Your task to perform on an android device: Empty the shopping cart on amazon. Search for energizer triple a on amazon, select the first entry, and add it to the cart. Image 0: 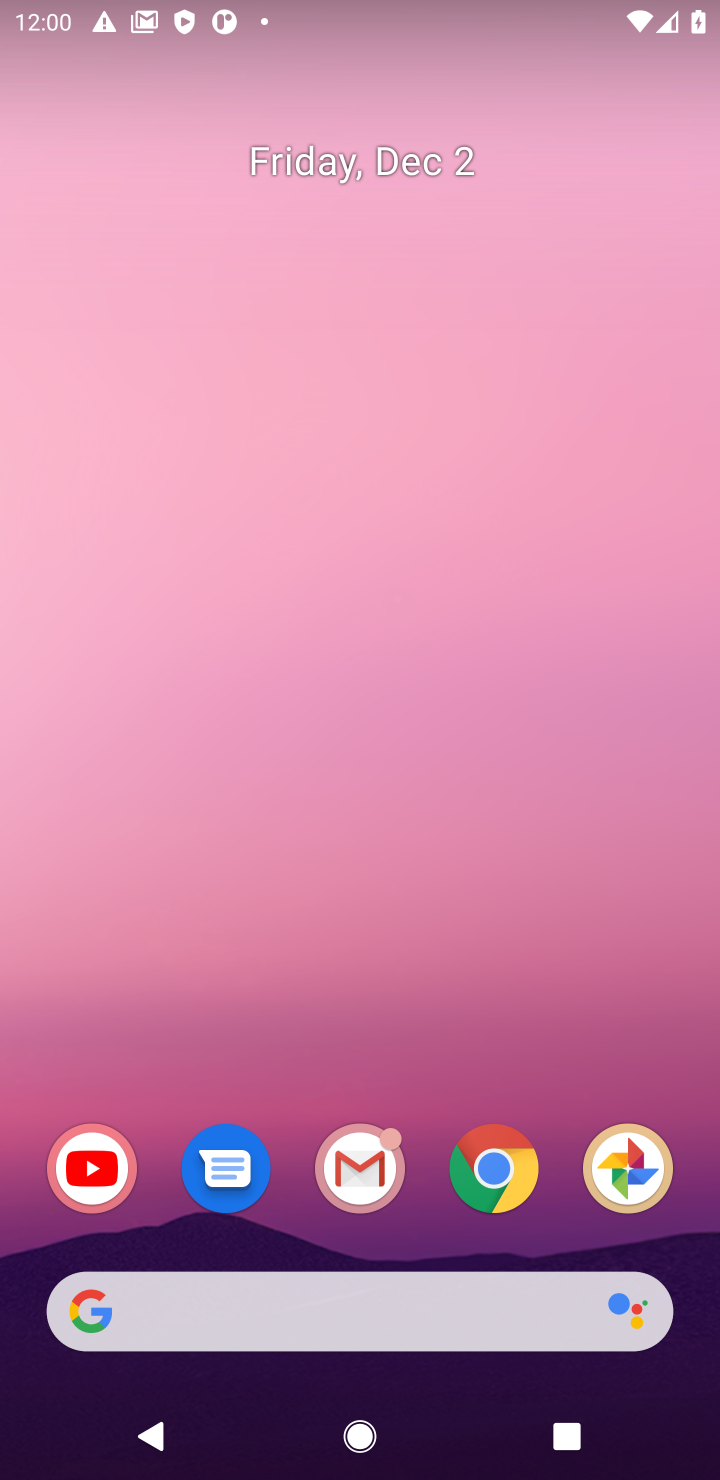
Step 0: click (504, 1177)
Your task to perform on an android device: Empty the shopping cart on amazon. Search for energizer triple a on amazon, select the first entry, and add it to the cart. Image 1: 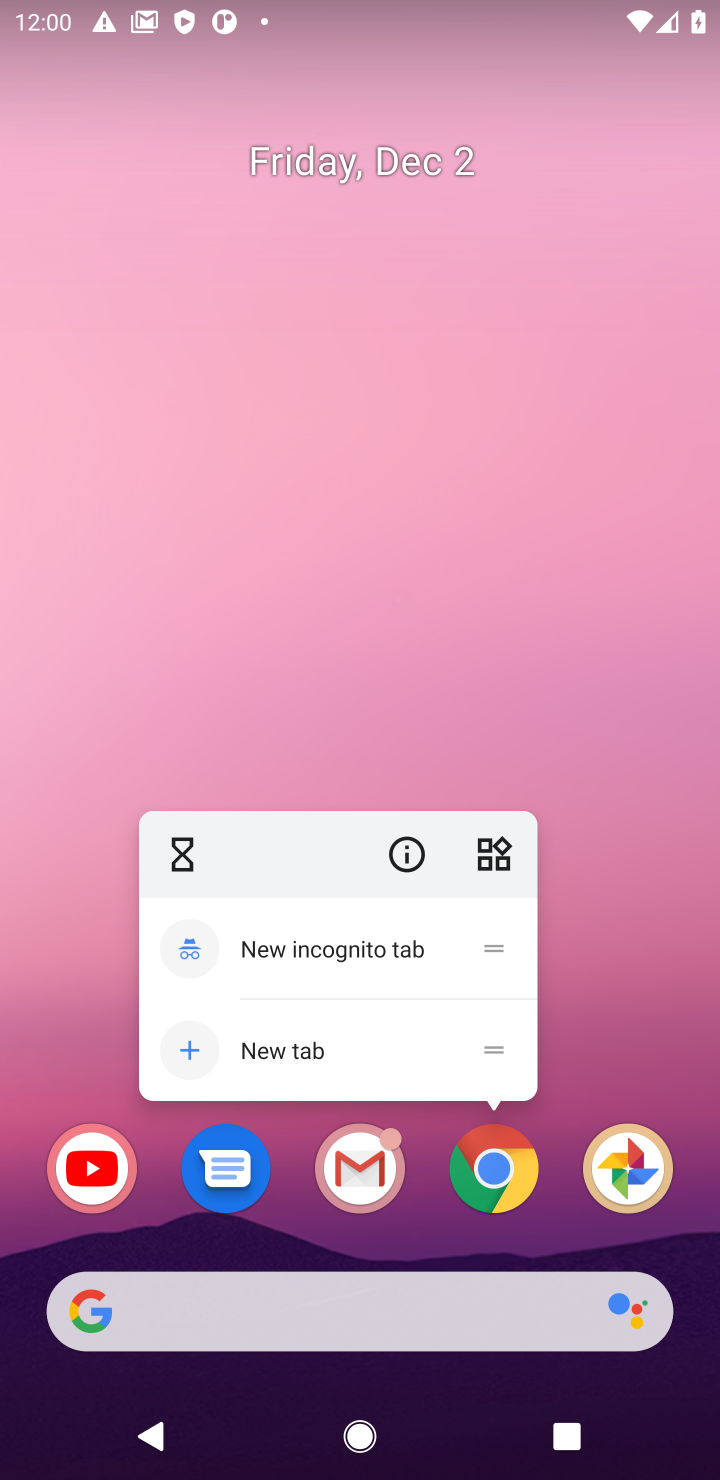
Step 1: click (504, 1177)
Your task to perform on an android device: Empty the shopping cart on amazon. Search for energizer triple a on amazon, select the first entry, and add it to the cart. Image 2: 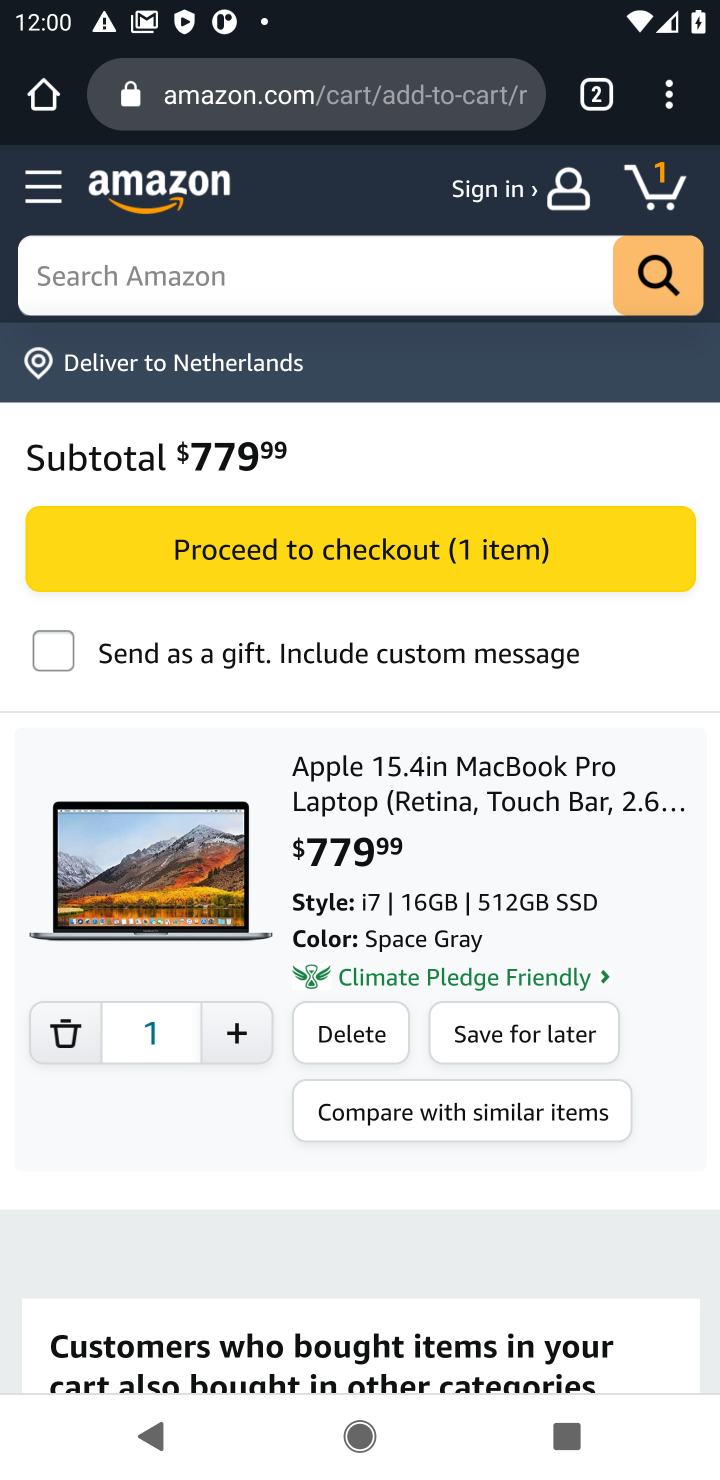
Step 2: click (64, 1046)
Your task to perform on an android device: Empty the shopping cart on amazon. Search for energizer triple a on amazon, select the first entry, and add it to the cart. Image 3: 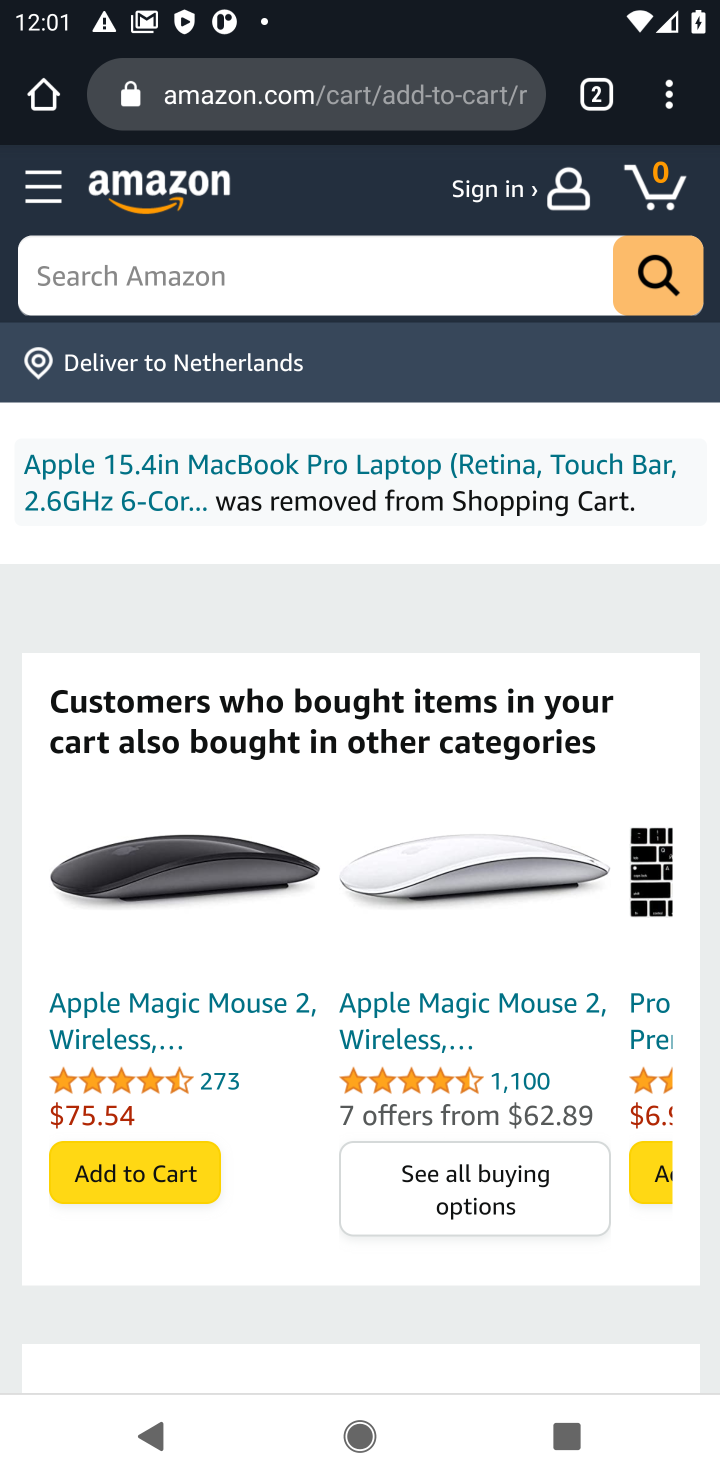
Step 3: click (73, 270)
Your task to perform on an android device: Empty the shopping cart on amazon. Search for energizer triple a on amazon, select the first entry, and add it to the cart. Image 4: 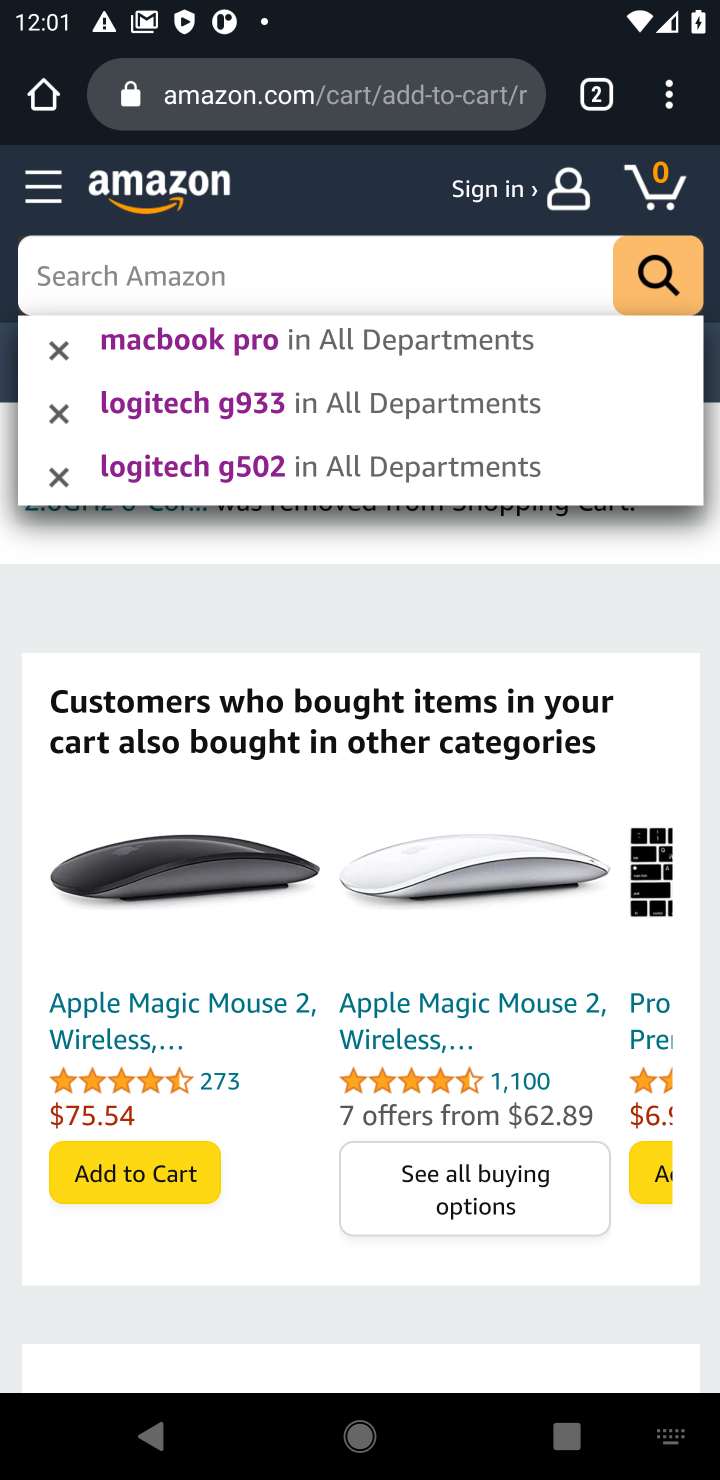
Step 4: type "energizer triple a"
Your task to perform on an android device: Empty the shopping cart on amazon. Search for energizer triple a on amazon, select the first entry, and add it to the cart. Image 5: 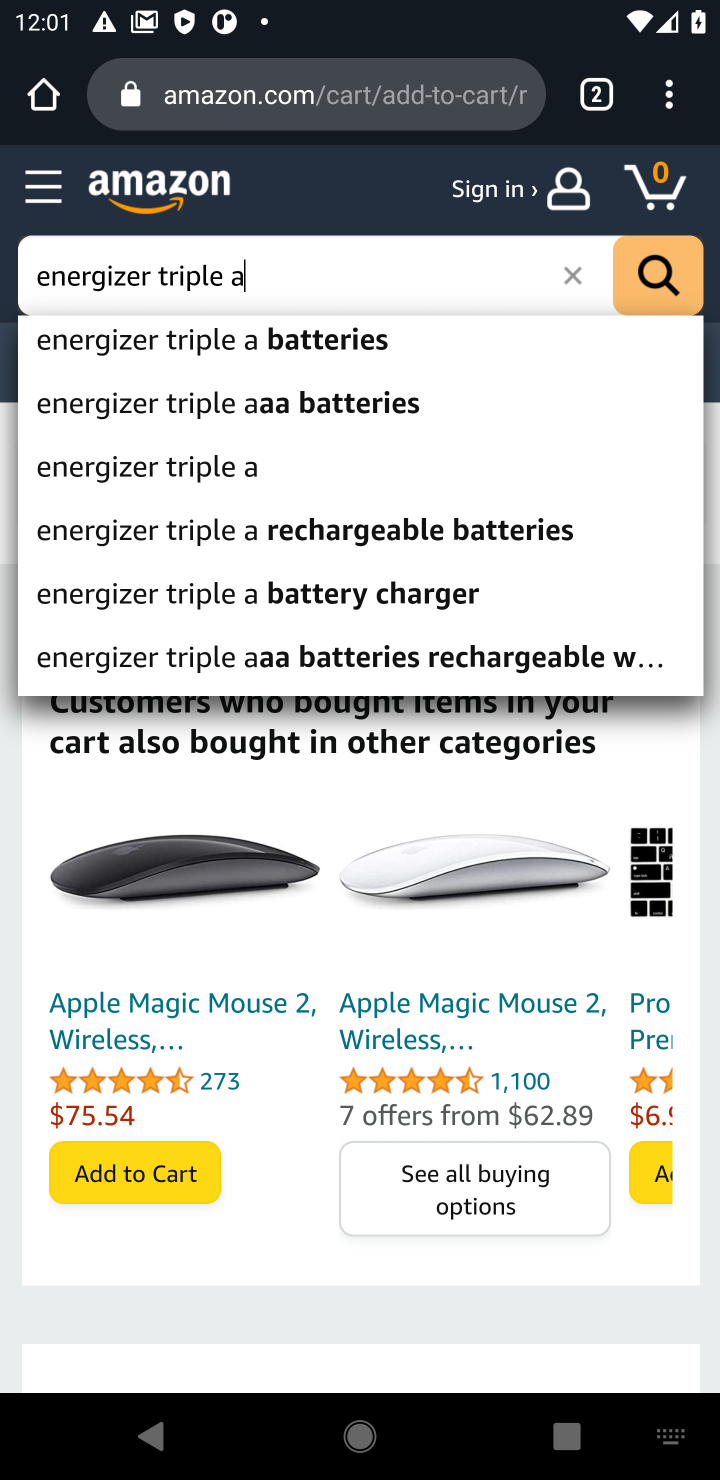
Step 5: click (298, 353)
Your task to perform on an android device: Empty the shopping cart on amazon. Search for energizer triple a on amazon, select the first entry, and add it to the cart. Image 6: 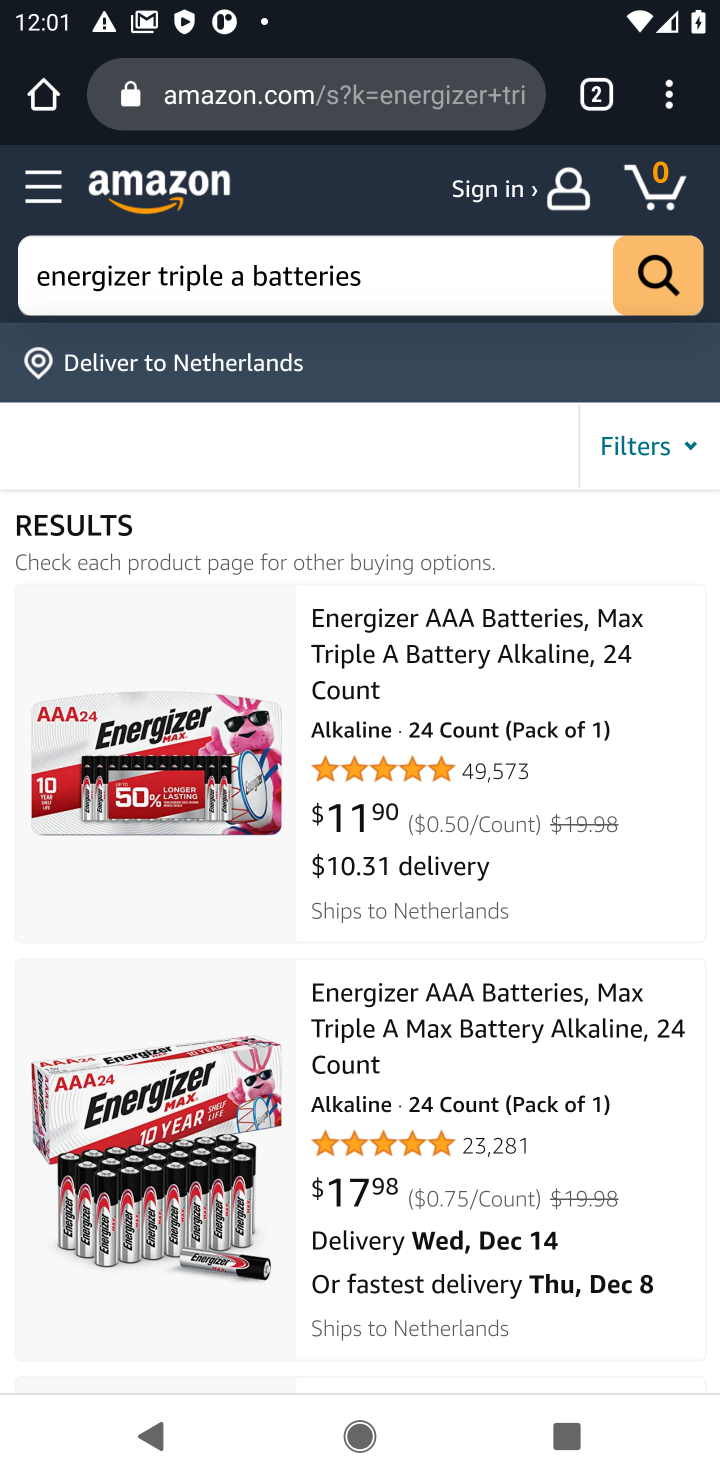
Step 6: click (401, 666)
Your task to perform on an android device: Empty the shopping cart on amazon. Search for energizer triple a on amazon, select the first entry, and add it to the cart. Image 7: 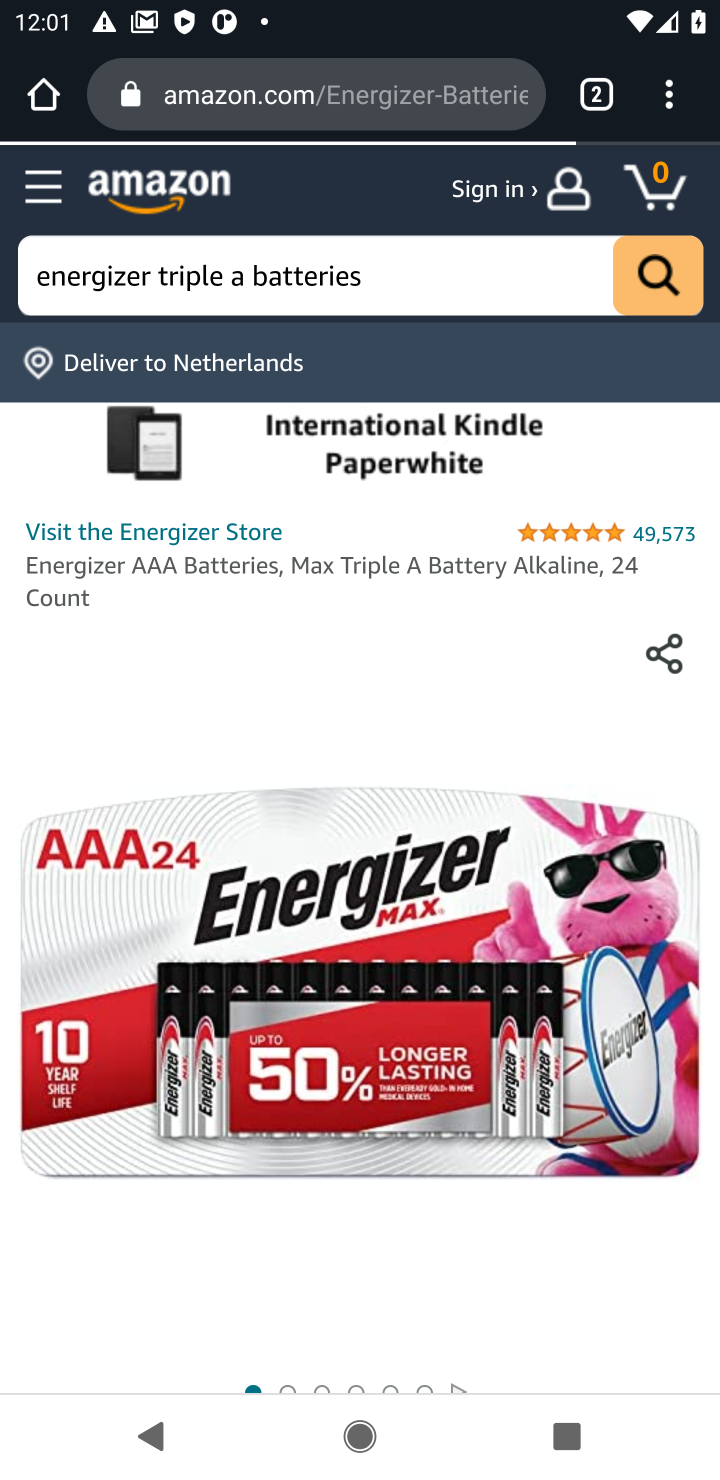
Step 7: drag from (409, 926) to (356, 440)
Your task to perform on an android device: Empty the shopping cart on amazon. Search for energizer triple a on amazon, select the first entry, and add it to the cart. Image 8: 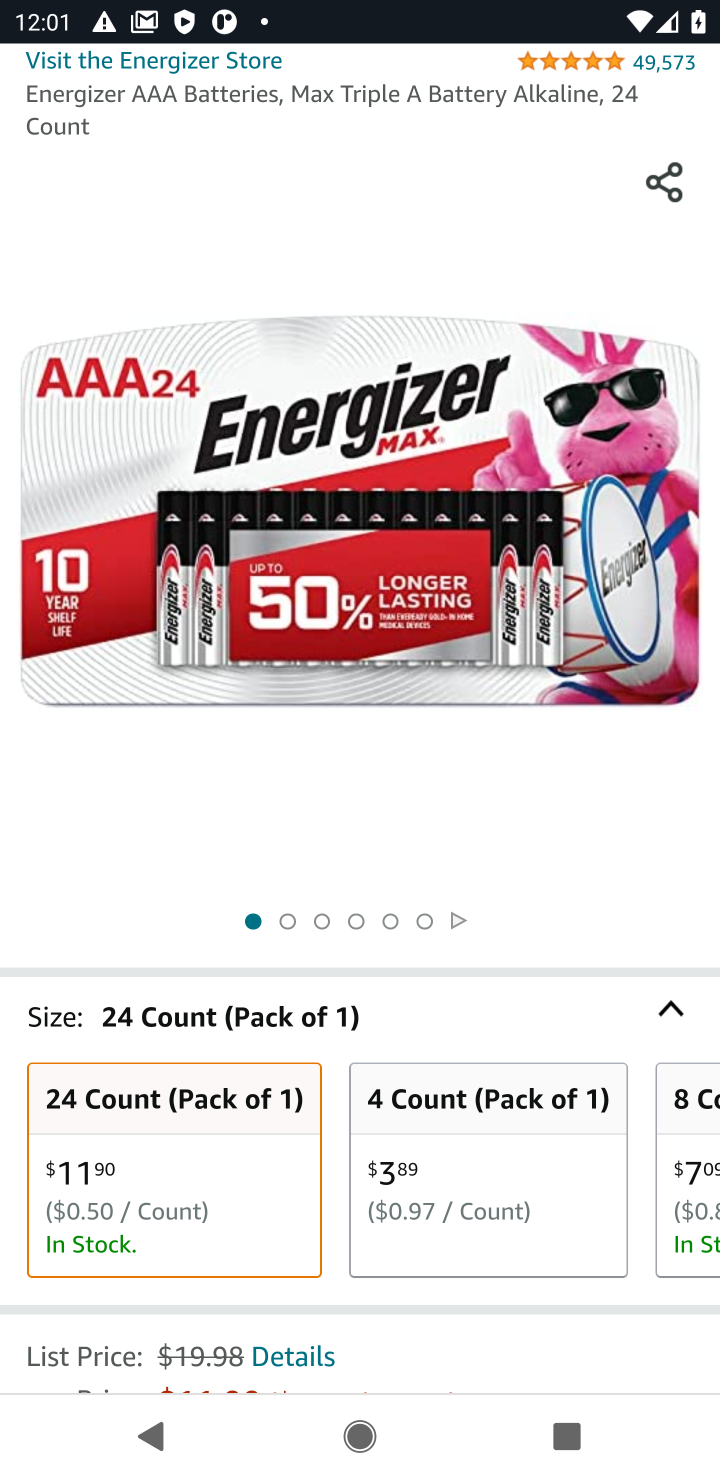
Step 8: drag from (468, 868) to (374, 238)
Your task to perform on an android device: Empty the shopping cart on amazon. Search for energizer triple a on amazon, select the first entry, and add it to the cart. Image 9: 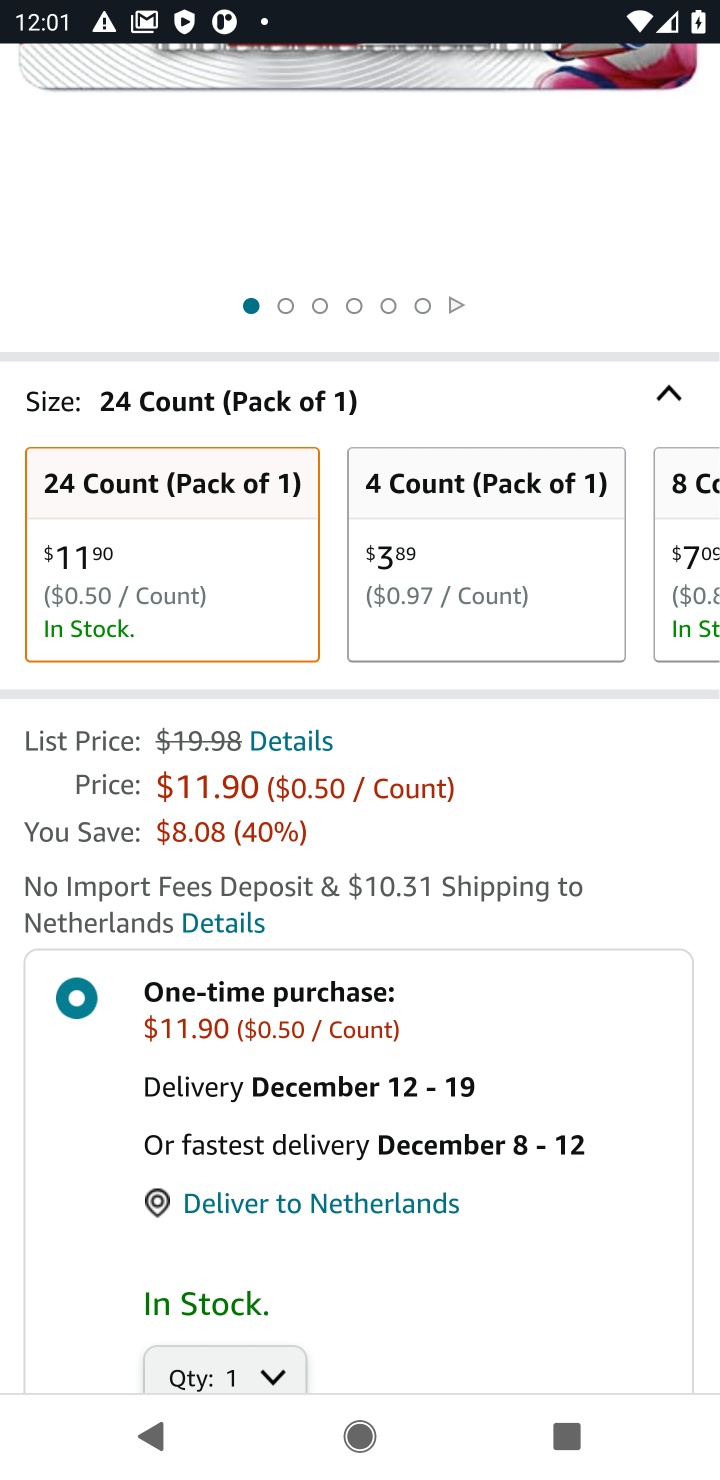
Step 9: drag from (458, 1075) to (375, 446)
Your task to perform on an android device: Empty the shopping cart on amazon. Search for energizer triple a on amazon, select the first entry, and add it to the cart. Image 10: 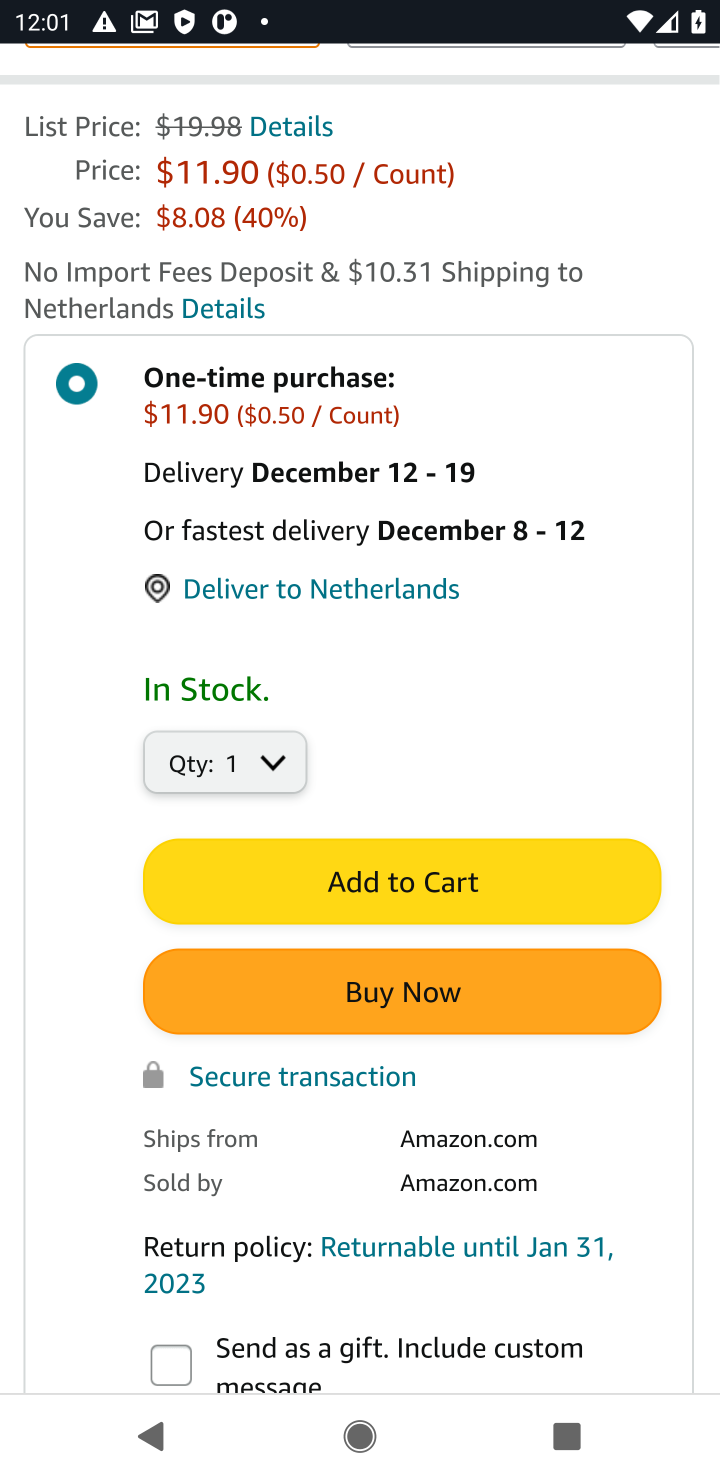
Step 10: click (362, 880)
Your task to perform on an android device: Empty the shopping cart on amazon. Search for energizer triple a on amazon, select the first entry, and add it to the cart. Image 11: 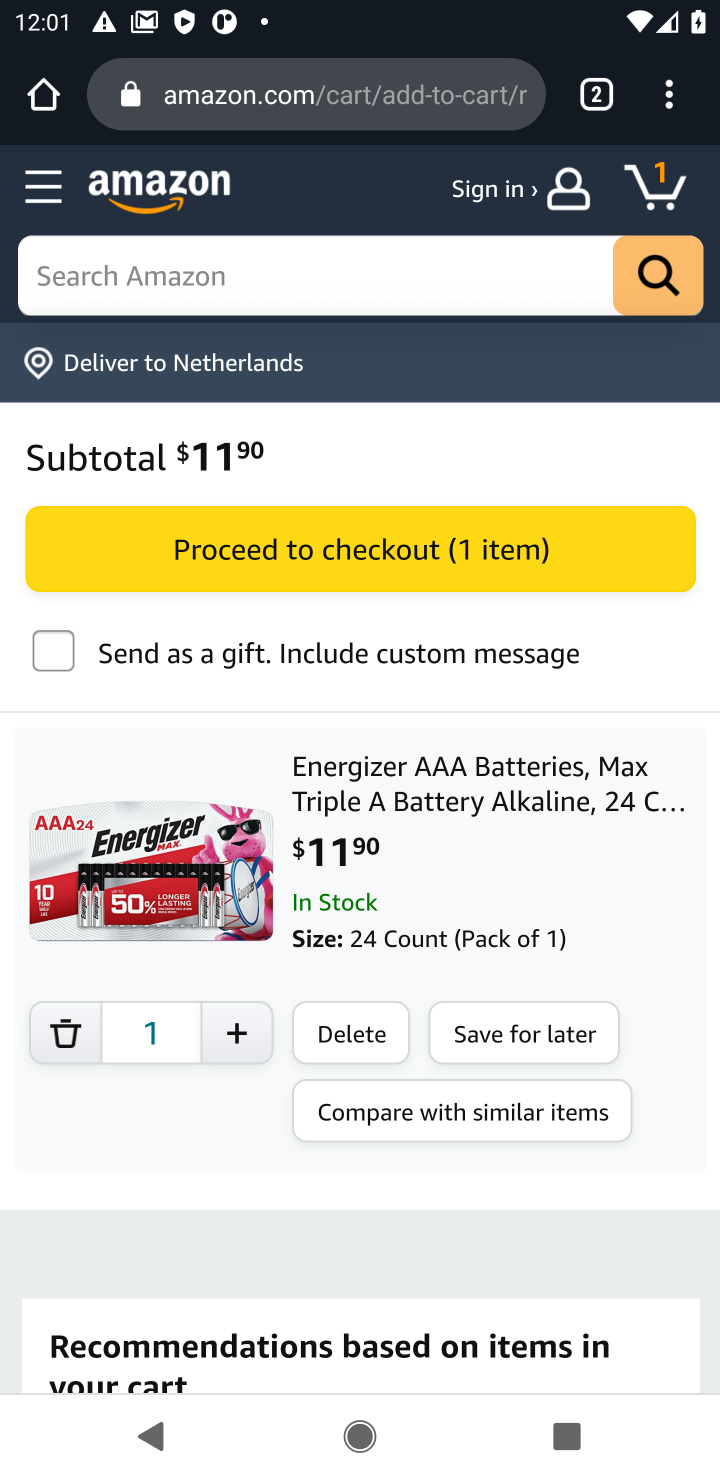
Step 11: task complete